Your task to perform on an android device: turn pop-ups on in chrome Image 0: 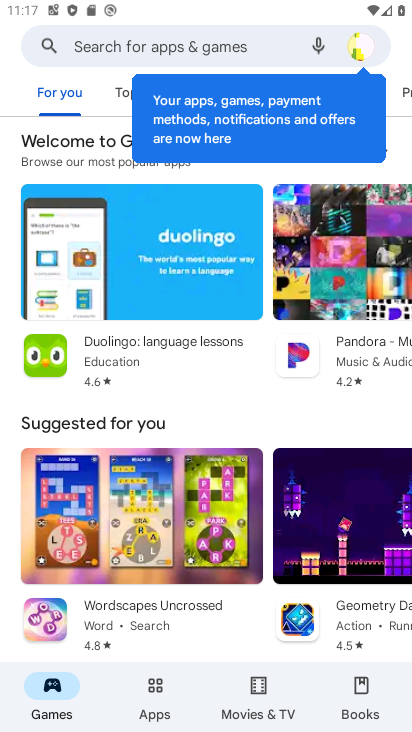
Step 0: press back button
Your task to perform on an android device: turn pop-ups on in chrome Image 1: 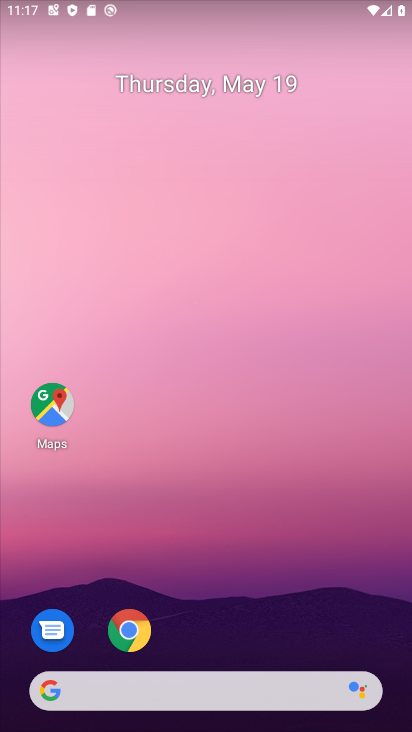
Step 1: click (132, 628)
Your task to perform on an android device: turn pop-ups on in chrome Image 2: 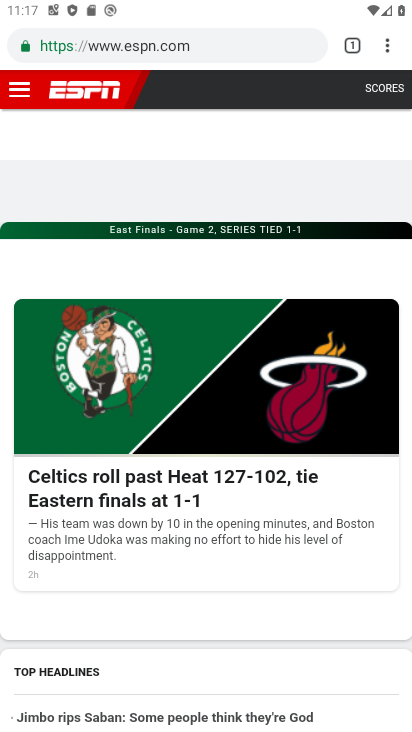
Step 2: click (386, 43)
Your task to perform on an android device: turn pop-ups on in chrome Image 3: 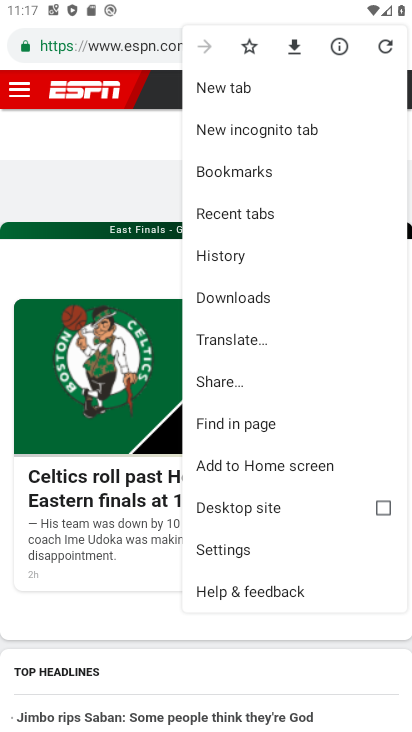
Step 3: click (237, 552)
Your task to perform on an android device: turn pop-ups on in chrome Image 4: 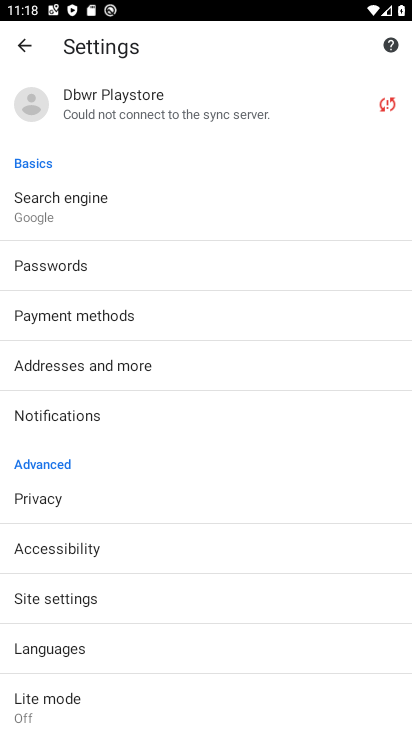
Step 4: click (75, 595)
Your task to perform on an android device: turn pop-ups on in chrome Image 5: 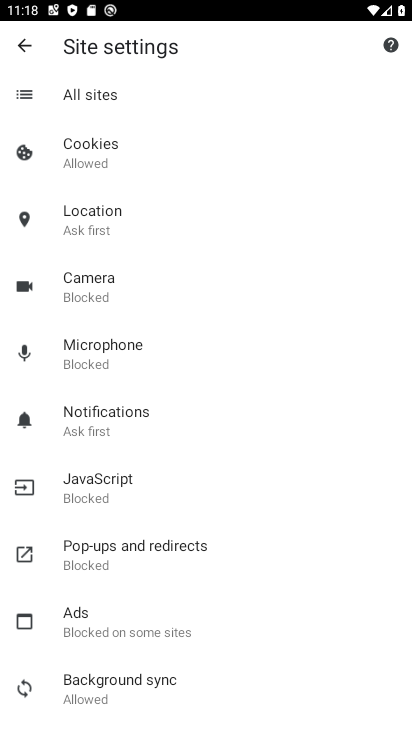
Step 5: click (112, 549)
Your task to perform on an android device: turn pop-ups on in chrome Image 6: 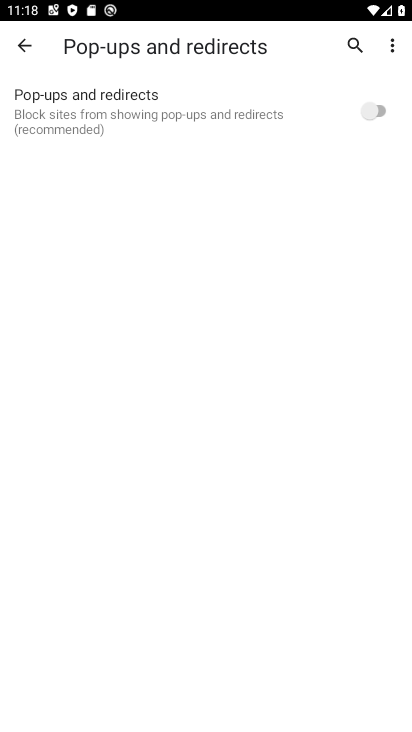
Step 6: click (372, 108)
Your task to perform on an android device: turn pop-ups on in chrome Image 7: 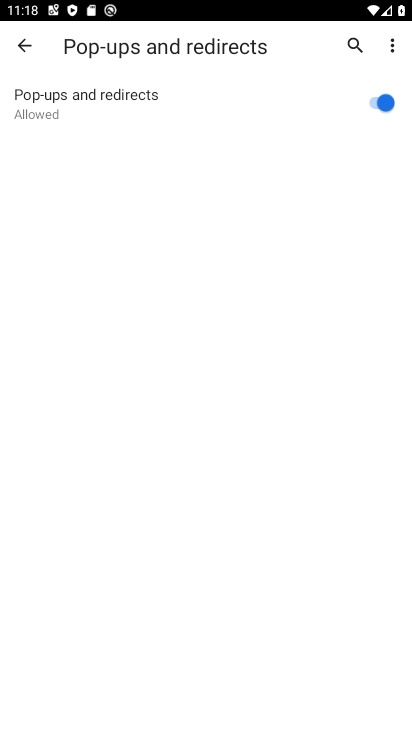
Step 7: task complete